Your task to perform on an android device: find snoozed emails in the gmail app Image 0: 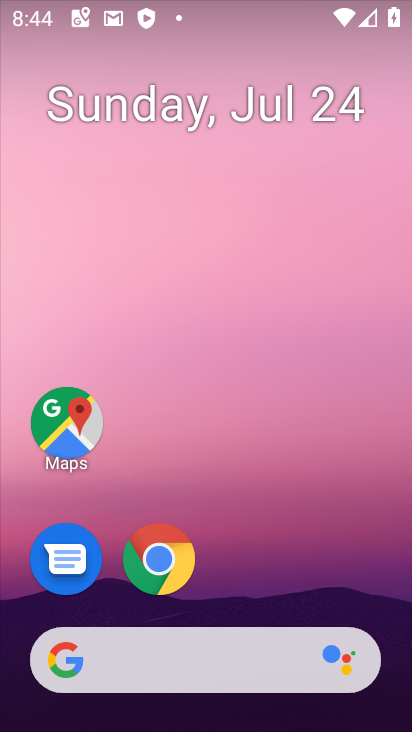
Step 0: drag from (230, 380) to (232, 2)
Your task to perform on an android device: find snoozed emails in the gmail app Image 1: 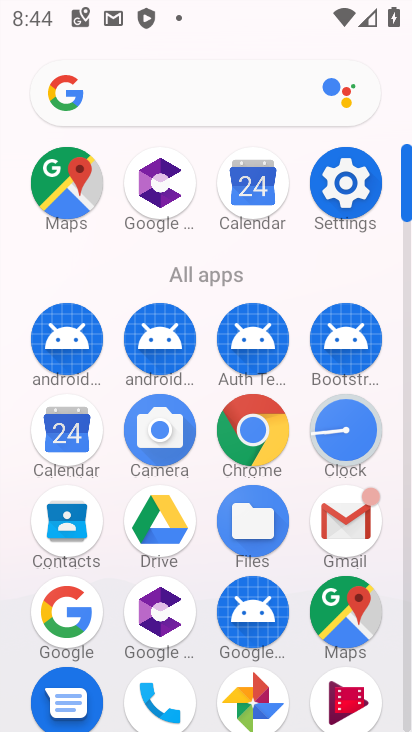
Step 1: click (345, 494)
Your task to perform on an android device: find snoozed emails in the gmail app Image 2: 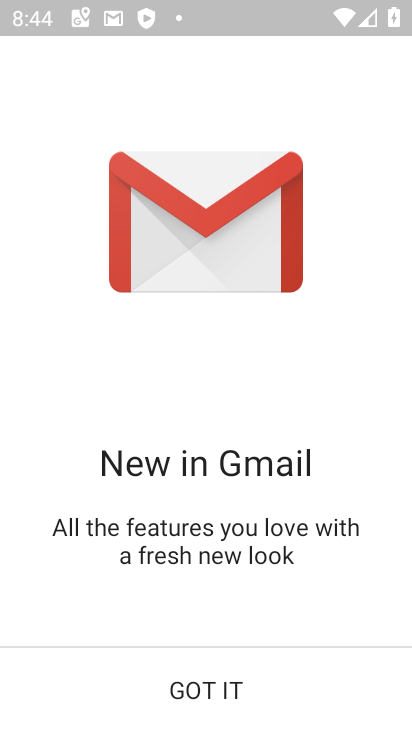
Step 2: click (200, 697)
Your task to perform on an android device: find snoozed emails in the gmail app Image 3: 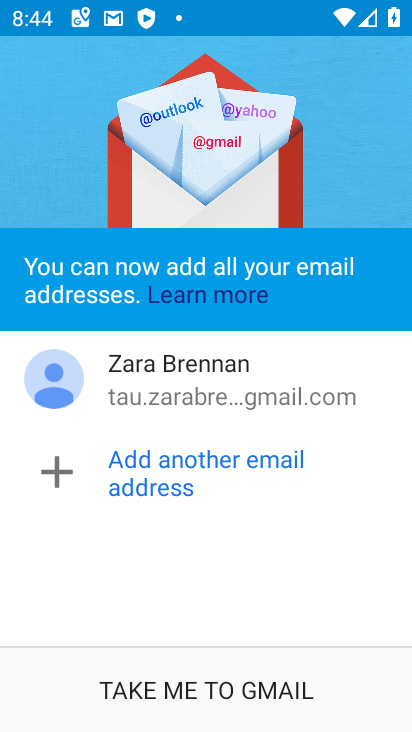
Step 3: click (212, 683)
Your task to perform on an android device: find snoozed emails in the gmail app Image 4: 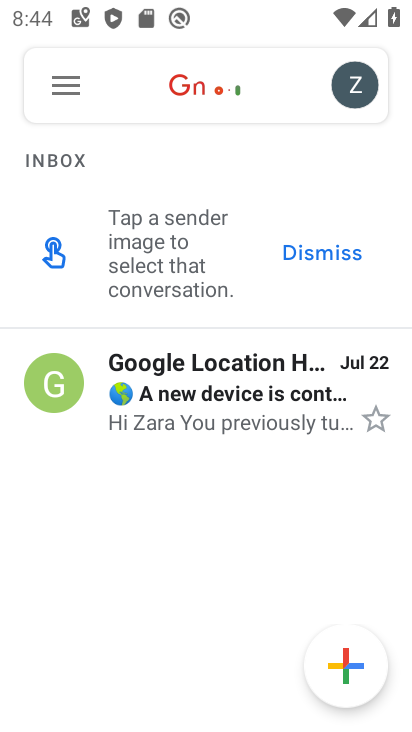
Step 4: click (69, 73)
Your task to perform on an android device: find snoozed emails in the gmail app Image 5: 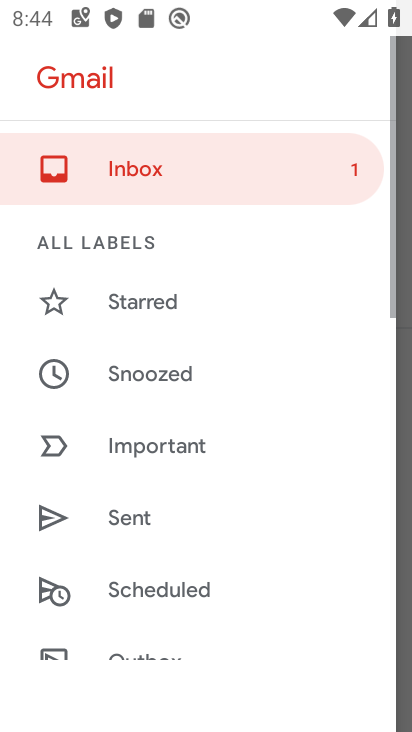
Step 5: click (149, 367)
Your task to perform on an android device: find snoozed emails in the gmail app Image 6: 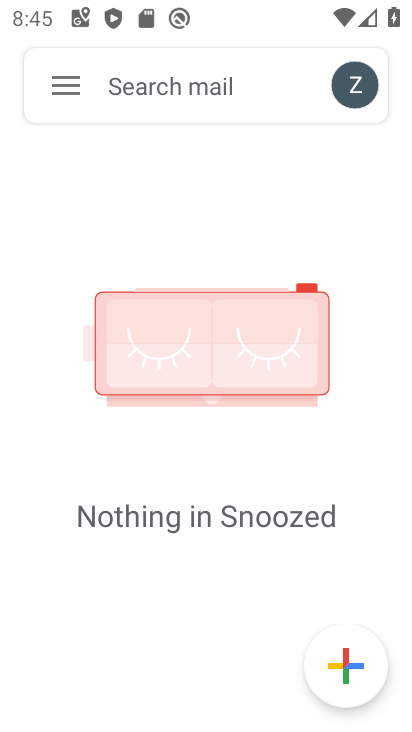
Step 6: task complete